Your task to perform on an android device: Open calendar and show me the second week of next month Image 0: 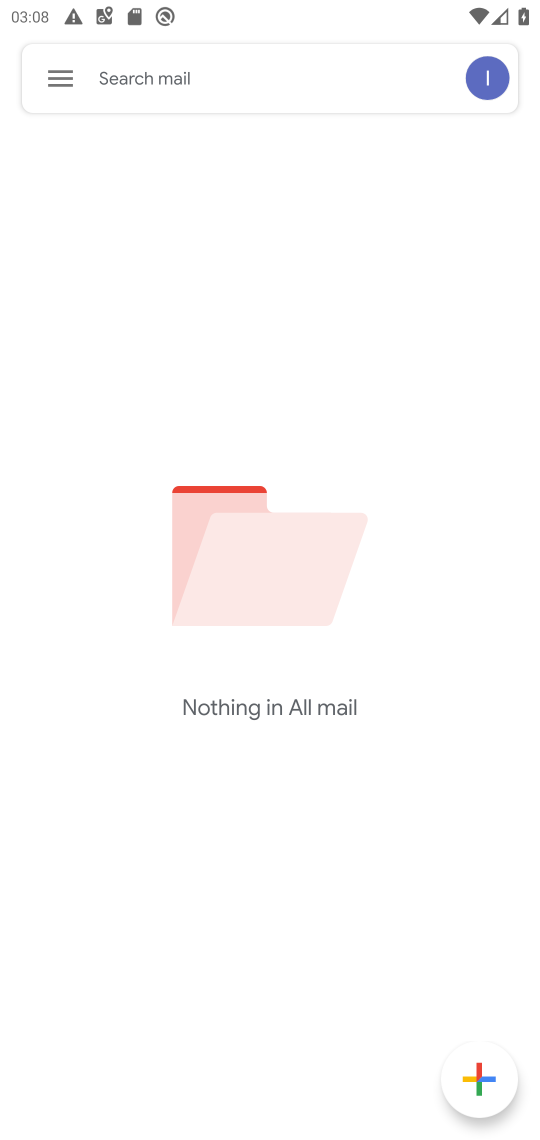
Step 0: press home button
Your task to perform on an android device: Open calendar and show me the second week of next month Image 1: 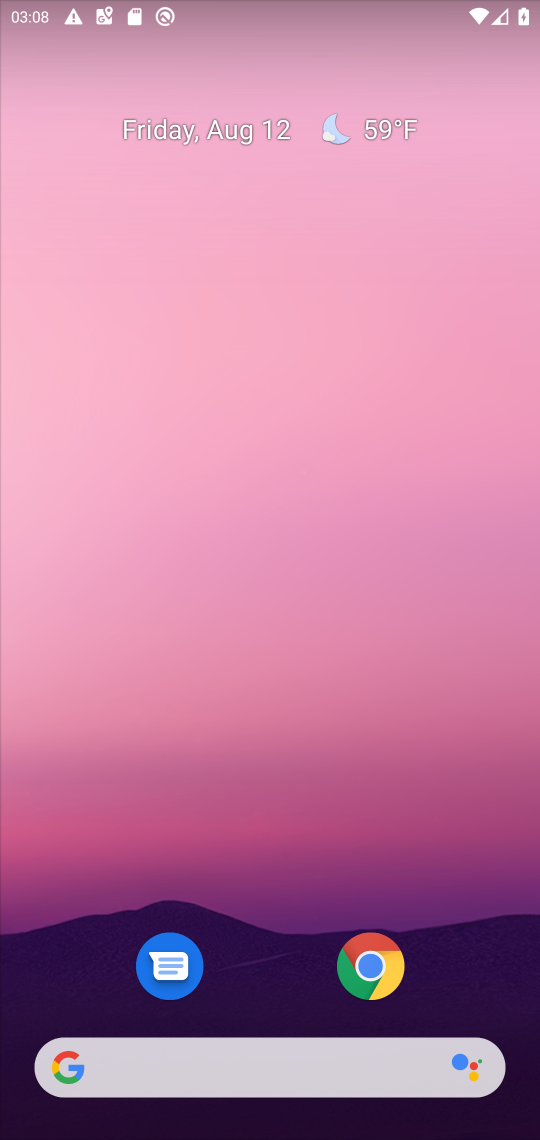
Step 1: drag from (270, 911) to (415, 101)
Your task to perform on an android device: Open calendar and show me the second week of next month Image 2: 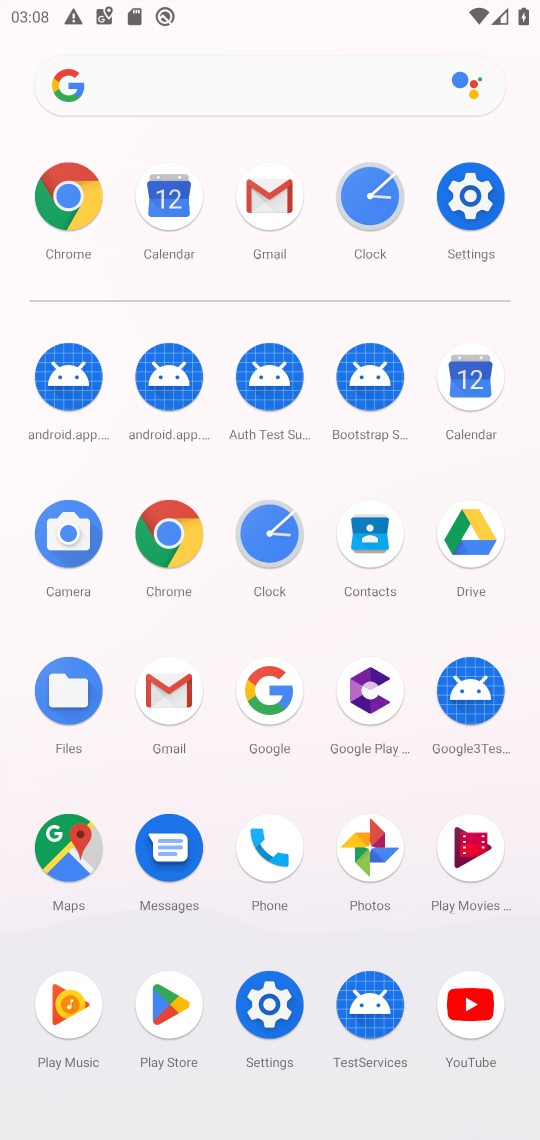
Step 2: click (471, 376)
Your task to perform on an android device: Open calendar and show me the second week of next month Image 3: 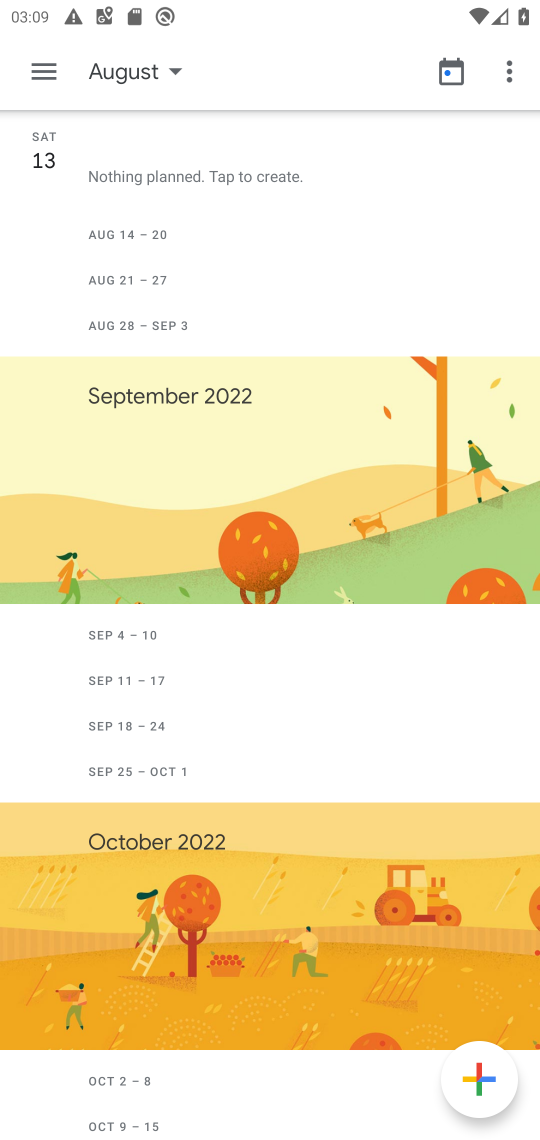
Step 3: click (149, 71)
Your task to perform on an android device: Open calendar and show me the second week of next month Image 4: 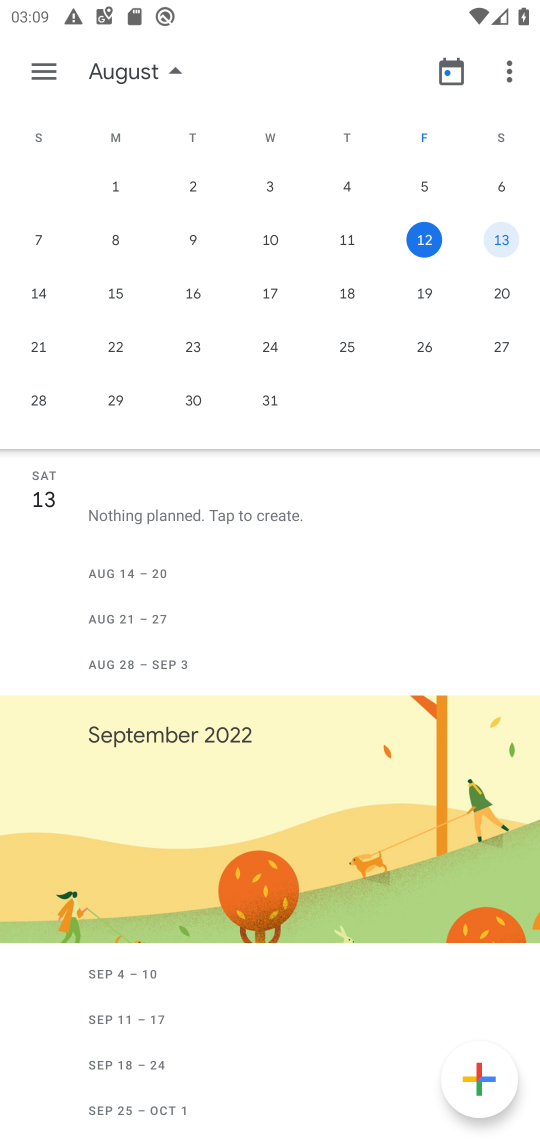
Step 4: drag from (462, 301) to (19, 310)
Your task to perform on an android device: Open calendar and show me the second week of next month Image 5: 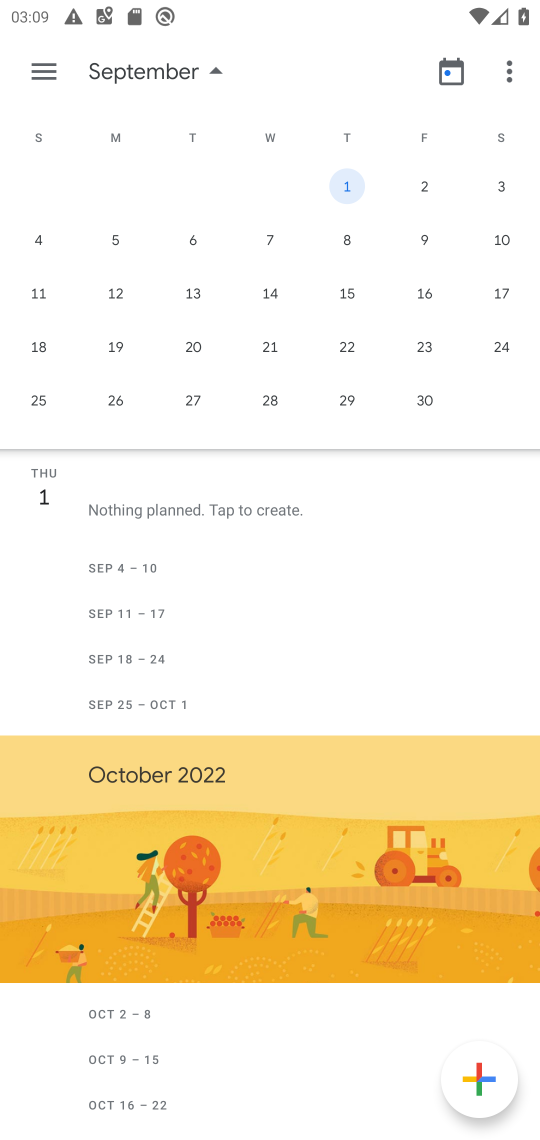
Step 5: click (110, 286)
Your task to perform on an android device: Open calendar and show me the second week of next month Image 6: 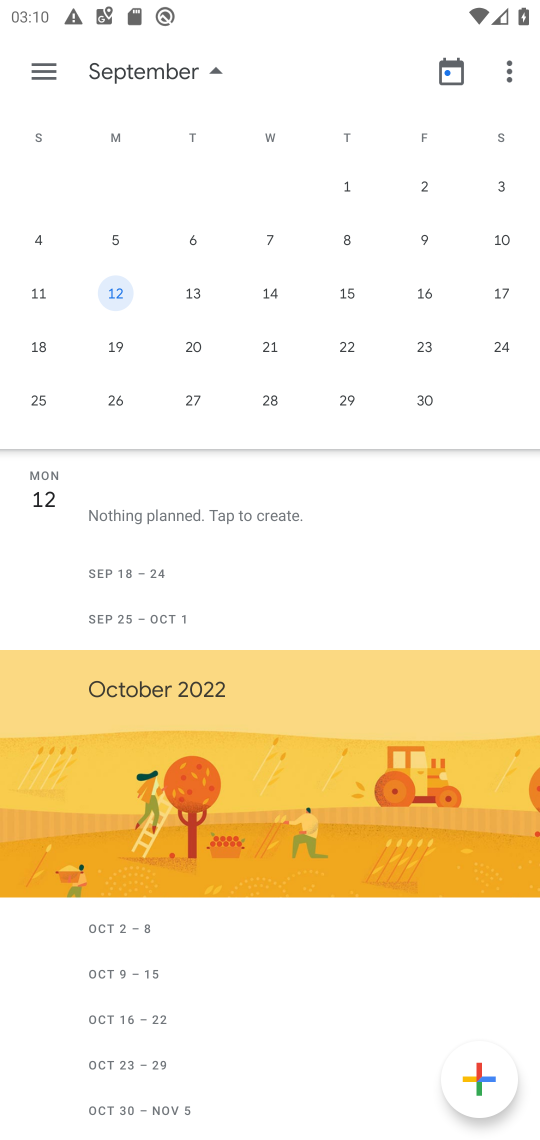
Step 6: click (50, 58)
Your task to perform on an android device: Open calendar and show me the second week of next month Image 7: 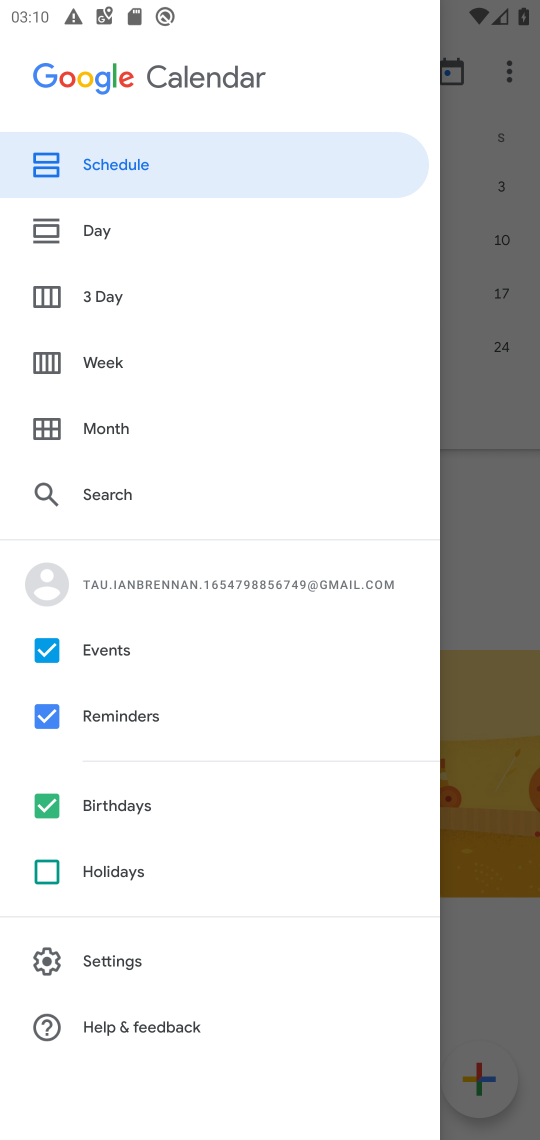
Step 7: click (77, 370)
Your task to perform on an android device: Open calendar and show me the second week of next month Image 8: 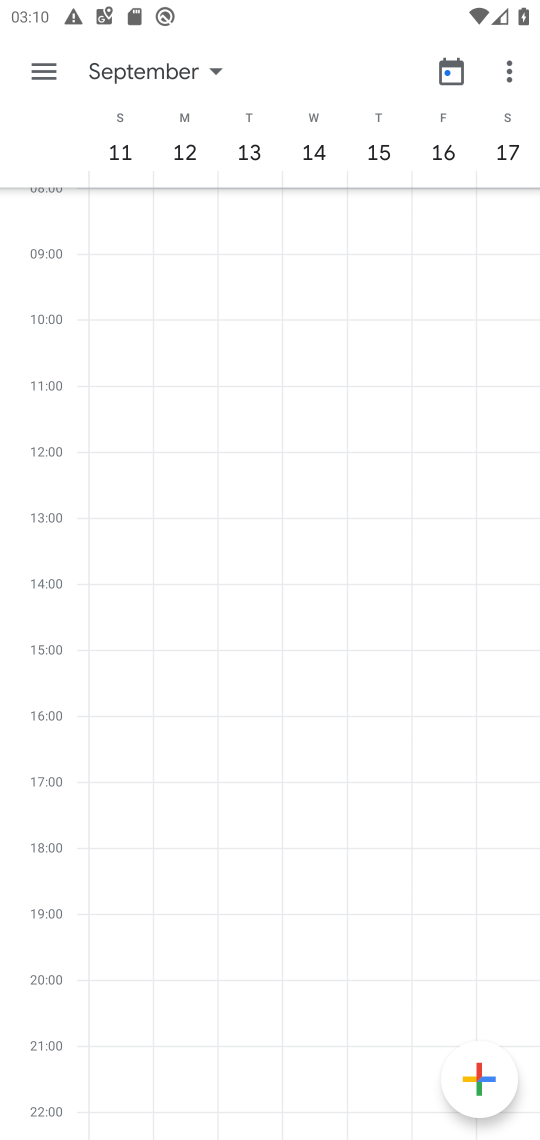
Step 8: task complete